Your task to perform on an android device: Open sound settings Image 0: 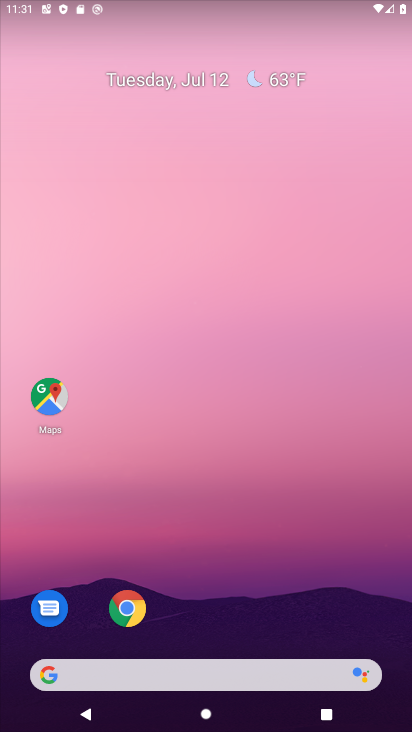
Step 0: drag from (261, 619) to (279, 110)
Your task to perform on an android device: Open sound settings Image 1: 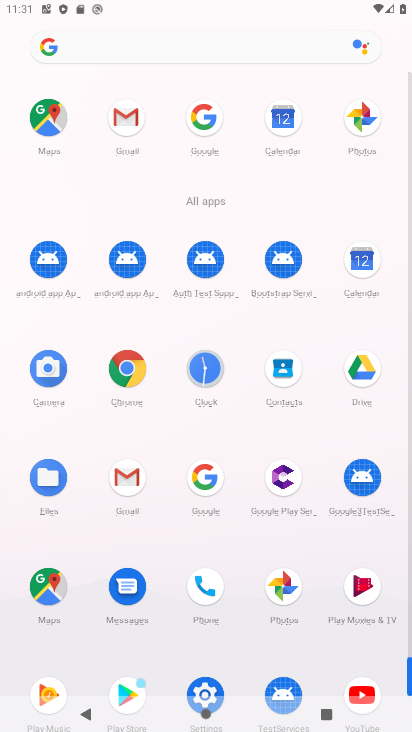
Step 1: click (202, 687)
Your task to perform on an android device: Open sound settings Image 2: 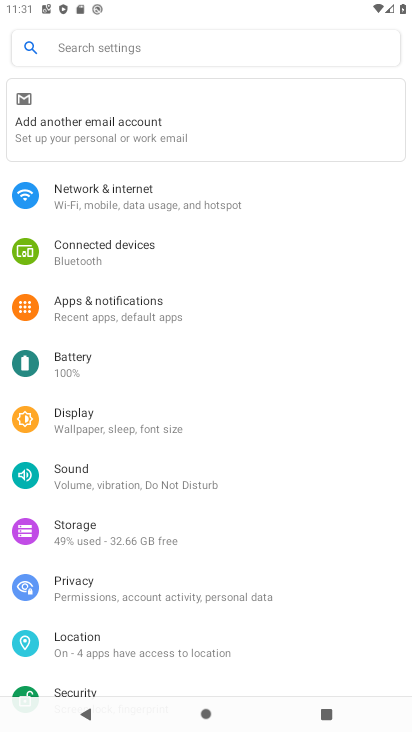
Step 2: click (125, 473)
Your task to perform on an android device: Open sound settings Image 3: 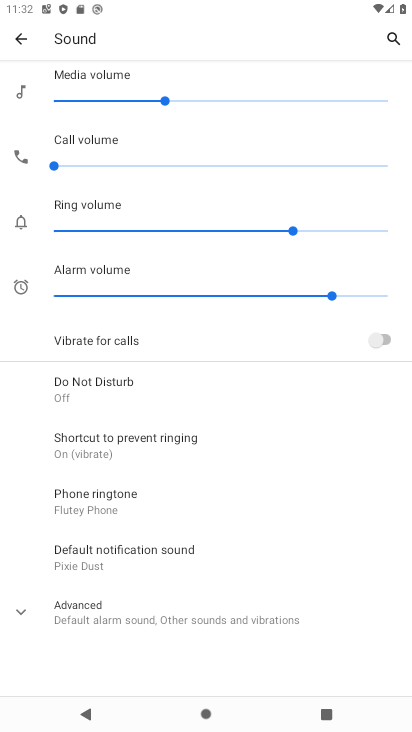
Step 3: task complete